Your task to perform on an android device: open a bookmark in the chrome app Image 0: 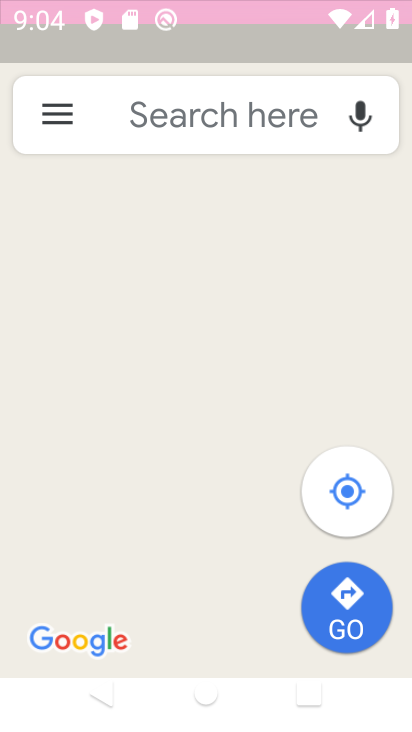
Step 0: drag from (316, 428) to (288, 18)
Your task to perform on an android device: open a bookmark in the chrome app Image 1: 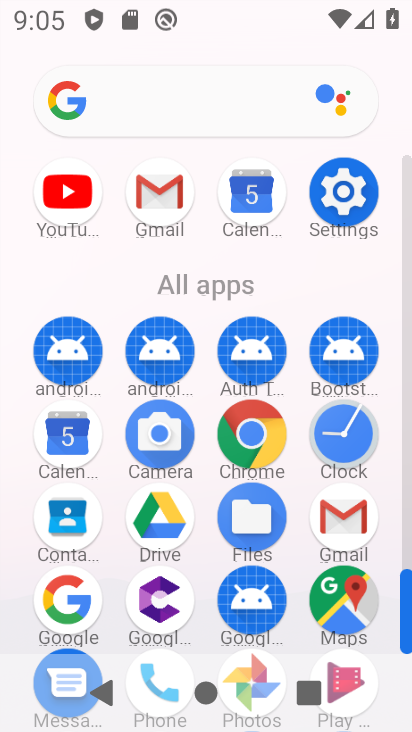
Step 1: click (255, 441)
Your task to perform on an android device: open a bookmark in the chrome app Image 2: 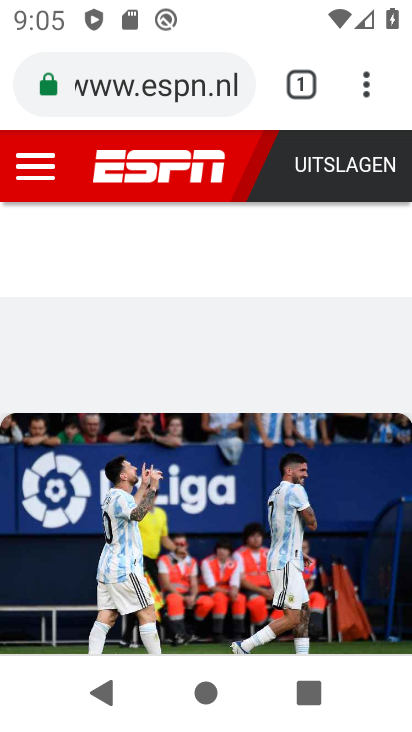
Step 2: click (369, 85)
Your task to perform on an android device: open a bookmark in the chrome app Image 3: 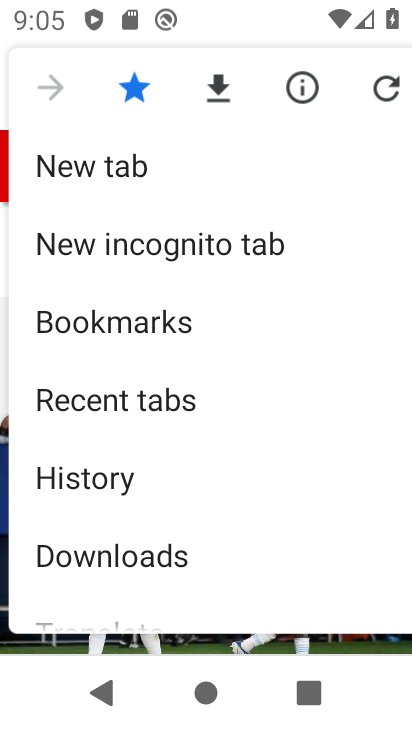
Step 3: drag from (144, 579) to (148, 402)
Your task to perform on an android device: open a bookmark in the chrome app Image 4: 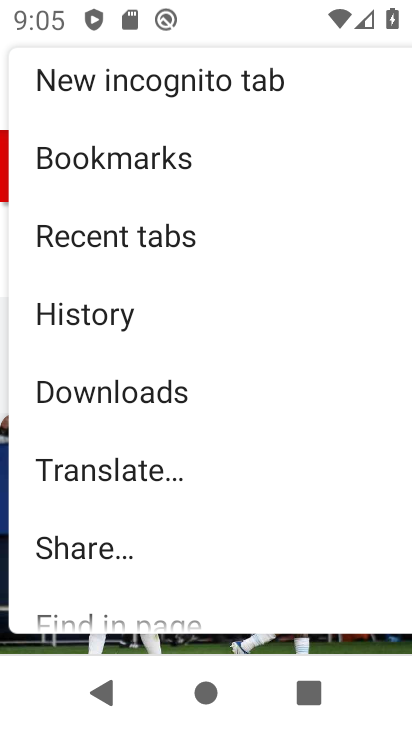
Step 4: click (125, 157)
Your task to perform on an android device: open a bookmark in the chrome app Image 5: 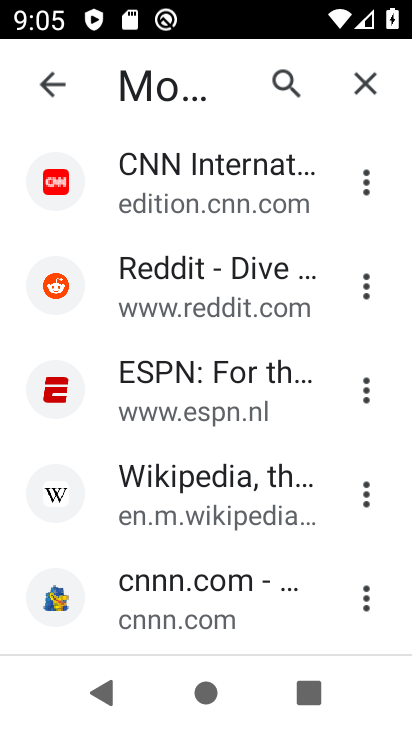
Step 5: click (167, 508)
Your task to perform on an android device: open a bookmark in the chrome app Image 6: 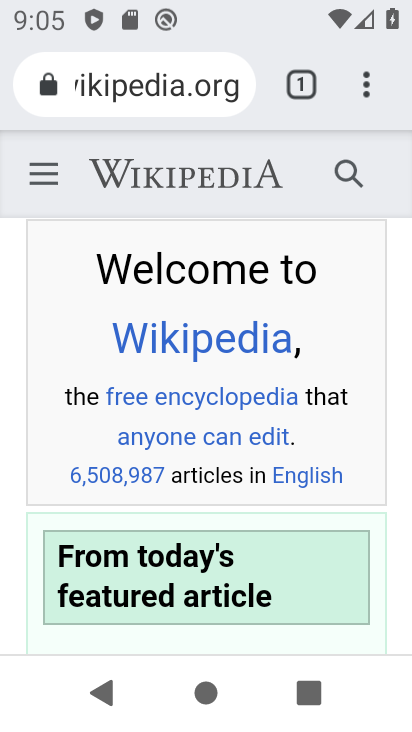
Step 6: task complete